Your task to perform on an android device: search for starred emails in the gmail app Image 0: 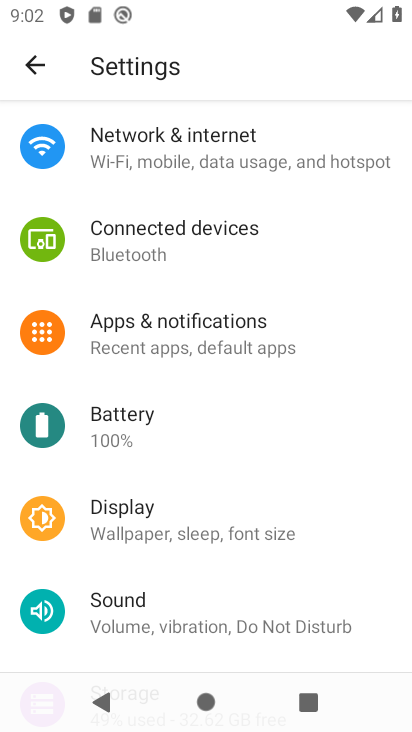
Step 0: press home button
Your task to perform on an android device: search for starred emails in the gmail app Image 1: 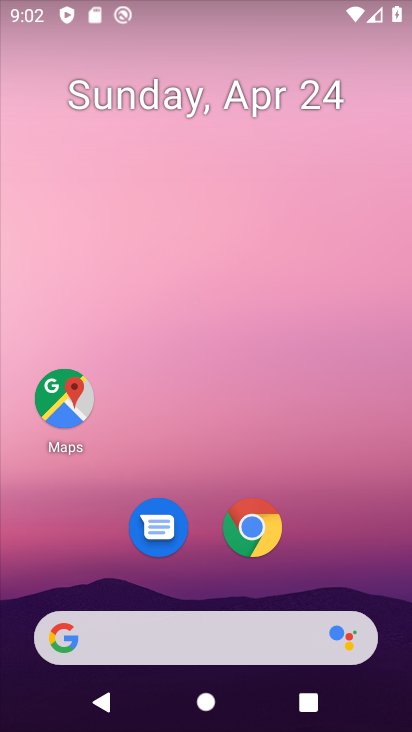
Step 1: drag from (204, 516) to (295, 92)
Your task to perform on an android device: search for starred emails in the gmail app Image 2: 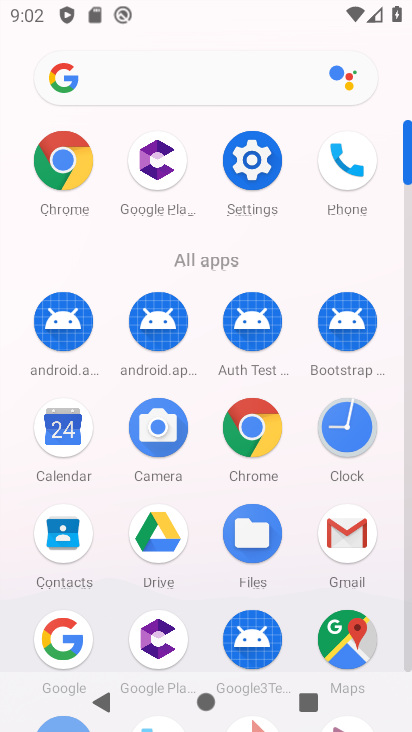
Step 2: click (335, 528)
Your task to perform on an android device: search for starred emails in the gmail app Image 3: 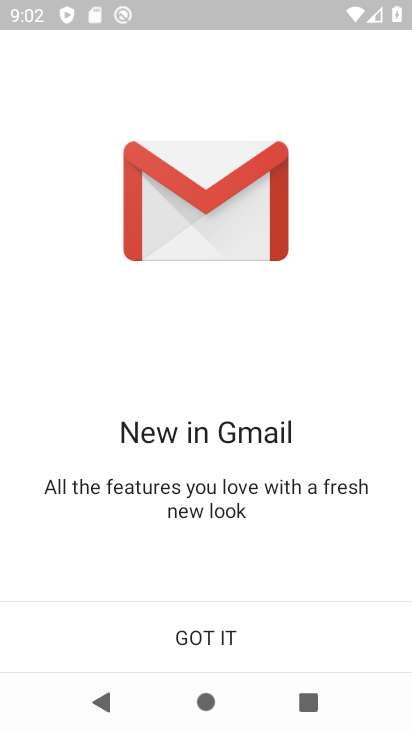
Step 3: click (225, 628)
Your task to perform on an android device: search for starred emails in the gmail app Image 4: 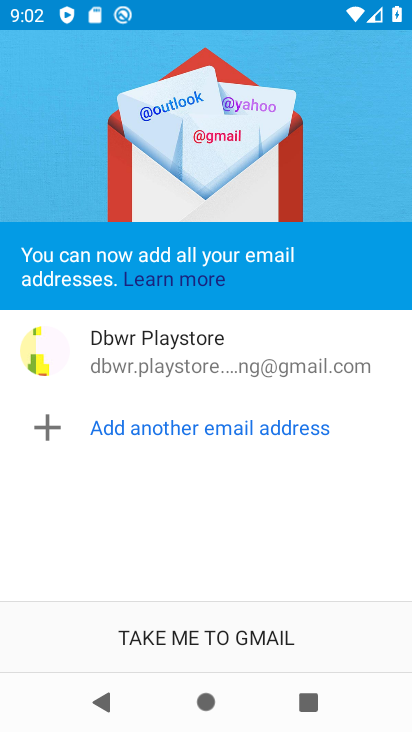
Step 4: click (220, 628)
Your task to perform on an android device: search for starred emails in the gmail app Image 5: 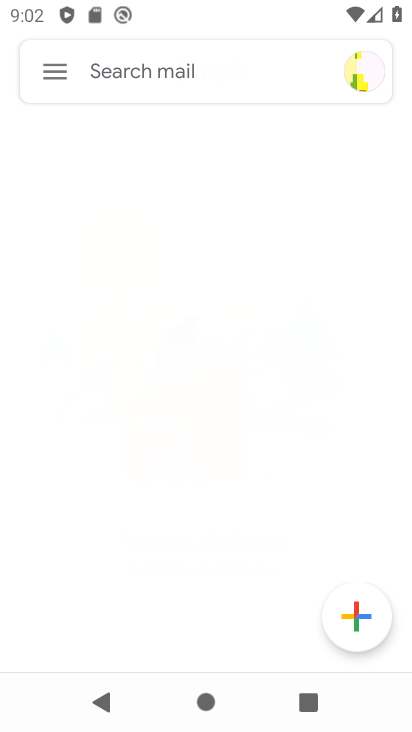
Step 5: click (44, 59)
Your task to perform on an android device: search for starred emails in the gmail app Image 6: 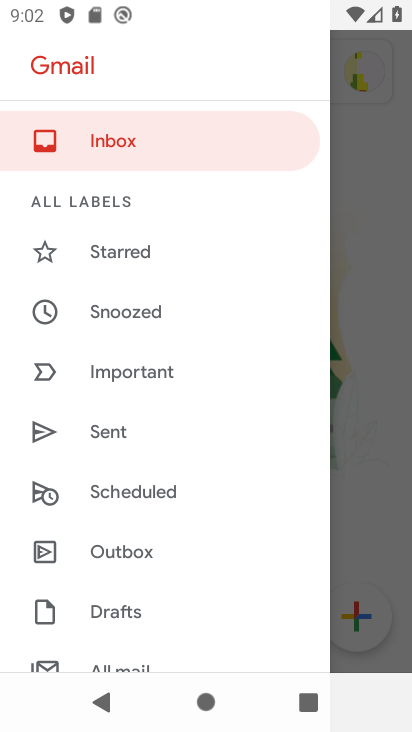
Step 6: click (109, 248)
Your task to perform on an android device: search for starred emails in the gmail app Image 7: 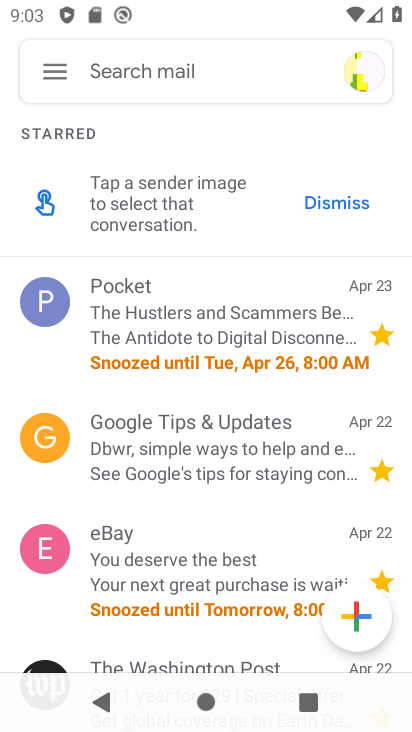
Step 7: click (55, 69)
Your task to perform on an android device: search for starred emails in the gmail app Image 8: 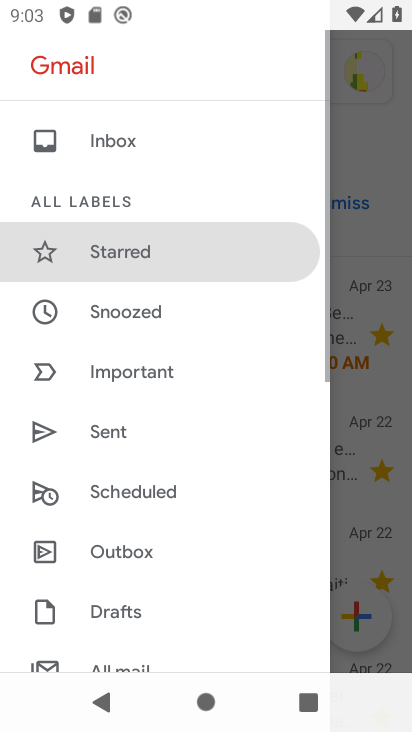
Step 8: click (163, 257)
Your task to perform on an android device: search for starred emails in the gmail app Image 9: 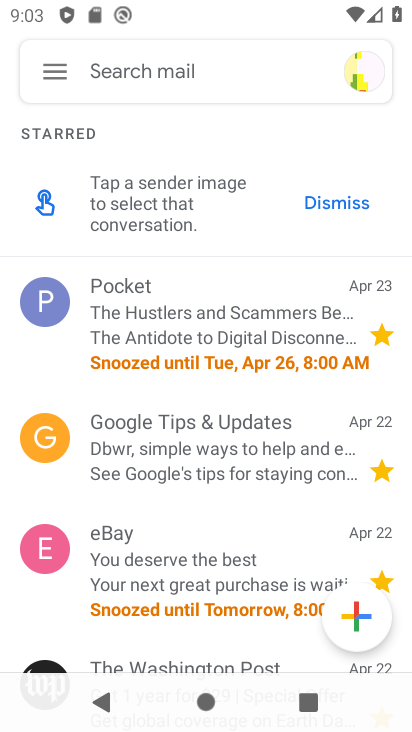
Step 9: task complete